Your task to perform on an android device: turn on the 24-hour format for clock Image 0: 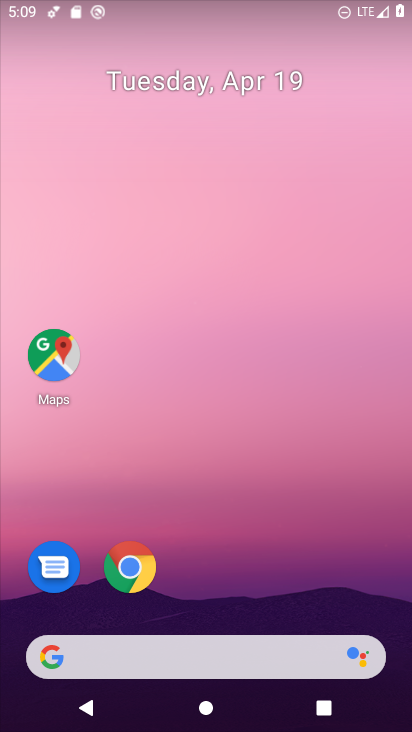
Step 0: drag from (212, 572) to (222, 88)
Your task to perform on an android device: turn on the 24-hour format for clock Image 1: 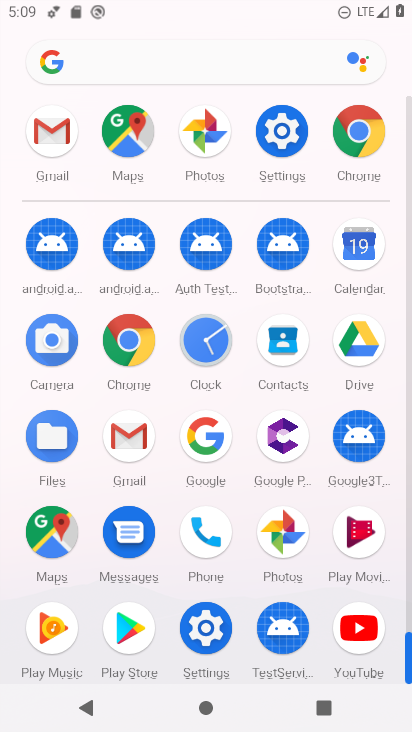
Step 1: click (203, 353)
Your task to perform on an android device: turn on the 24-hour format for clock Image 2: 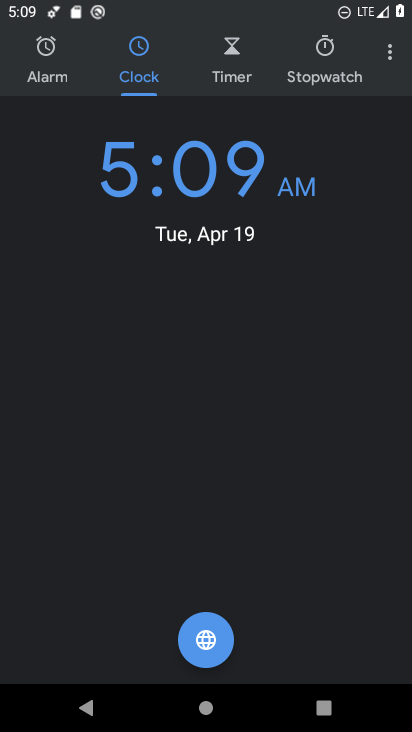
Step 2: click (393, 58)
Your task to perform on an android device: turn on the 24-hour format for clock Image 3: 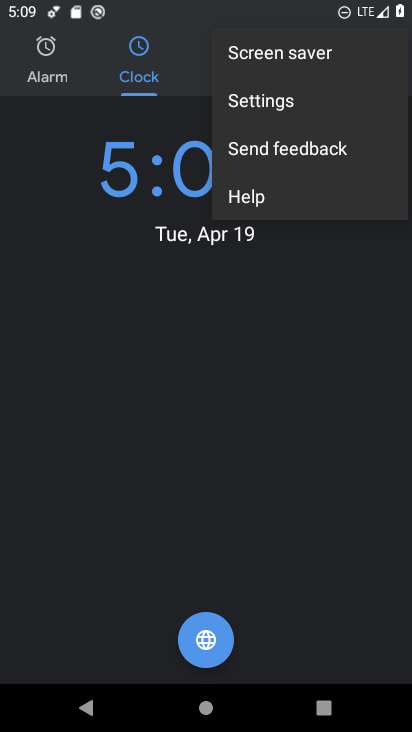
Step 3: click (297, 111)
Your task to perform on an android device: turn on the 24-hour format for clock Image 4: 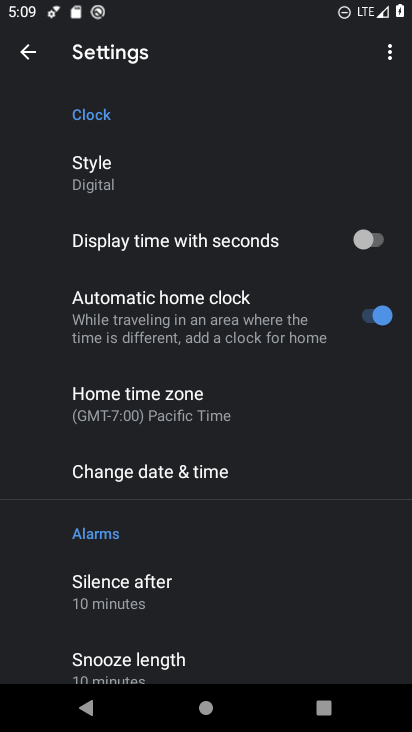
Step 4: click (233, 481)
Your task to perform on an android device: turn on the 24-hour format for clock Image 5: 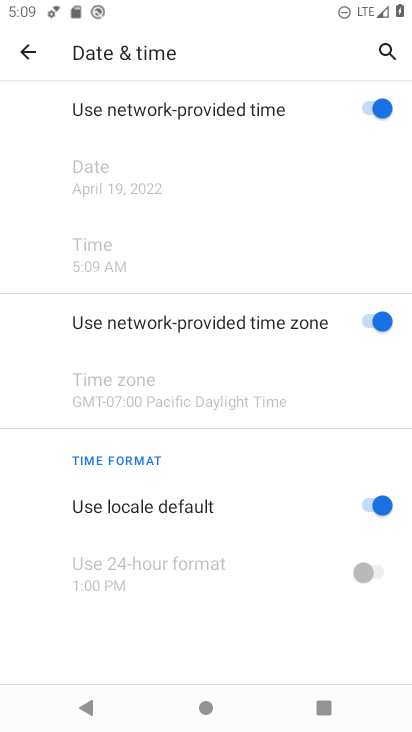
Step 5: click (364, 508)
Your task to perform on an android device: turn on the 24-hour format for clock Image 6: 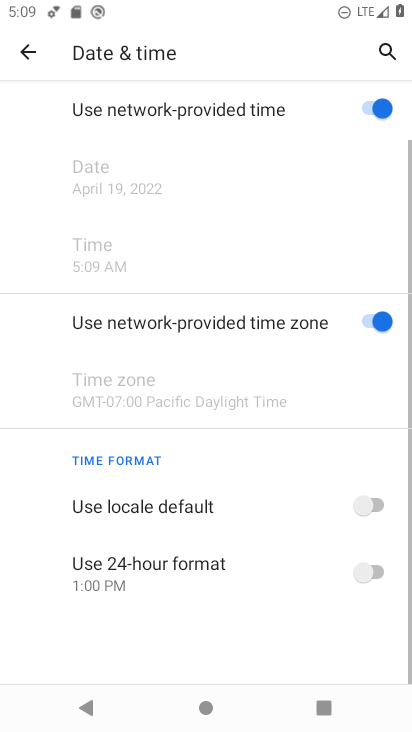
Step 6: click (374, 569)
Your task to perform on an android device: turn on the 24-hour format for clock Image 7: 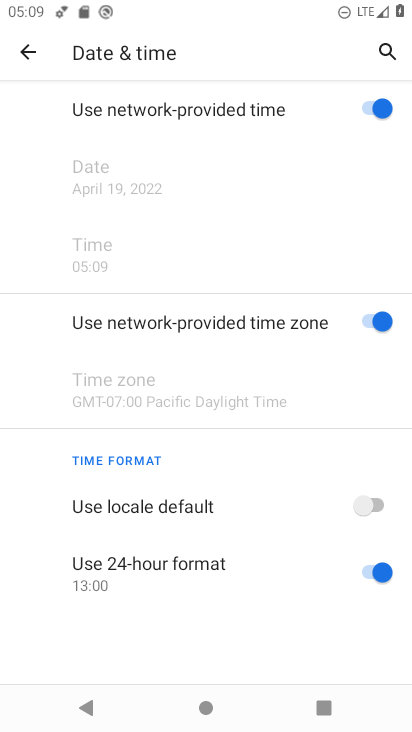
Step 7: task complete